Your task to perform on an android device: delete browsing data in the chrome app Image 0: 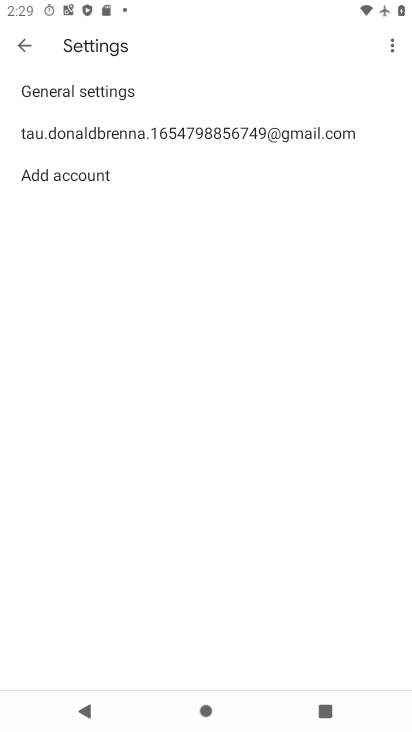
Step 0: press home button
Your task to perform on an android device: delete browsing data in the chrome app Image 1: 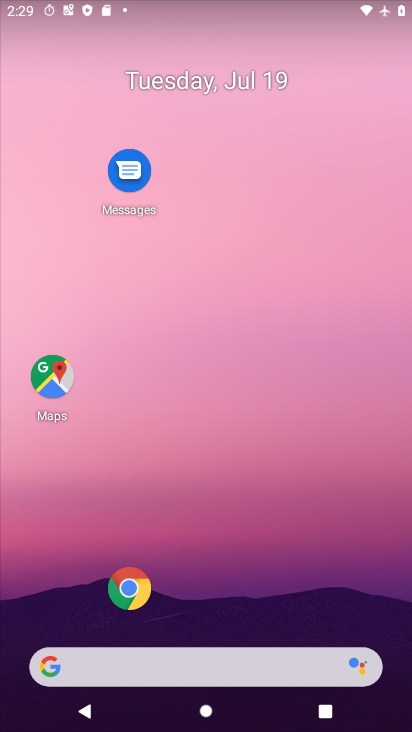
Step 1: click (120, 579)
Your task to perform on an android device: delete browsing data in the chrome app Image 2: 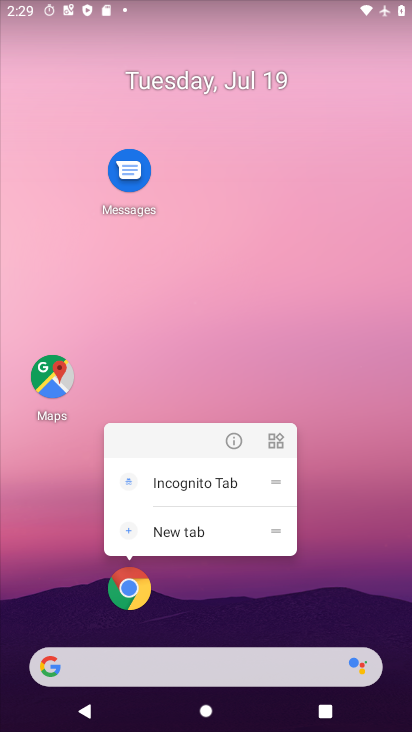
Step 2: click (139, 585)
Your task to perform on an android device: delete browsing data in the chrome app Image 3: 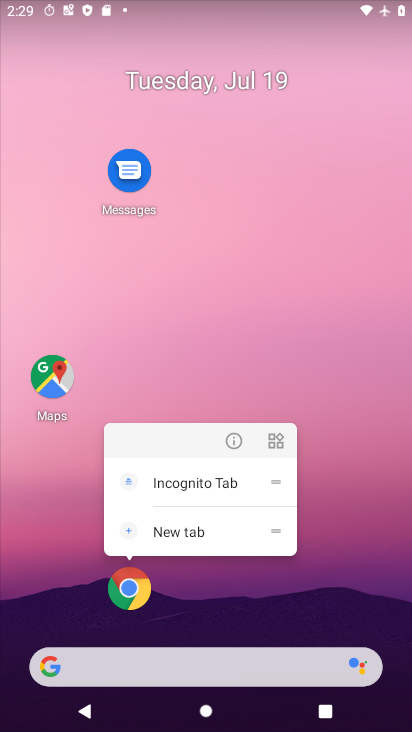
Step 3: click (140, 585)
Your task to perform on an android device: delete browsing data in the chrome app Image 4: 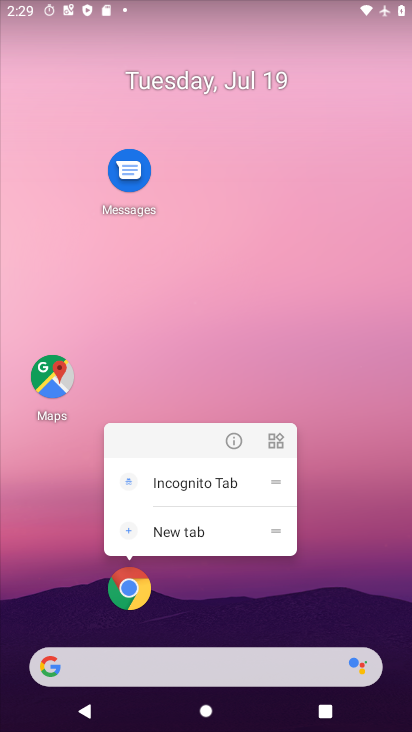
Step 4: click (61, 601)
Your task to perform on an android device: delete browsing data in the chrome app Image 5: 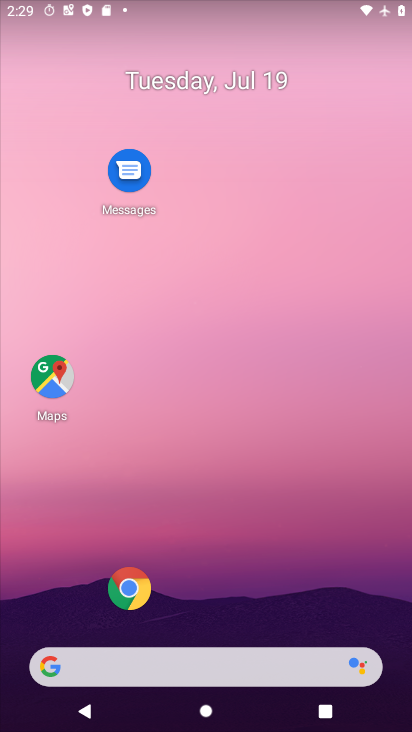
Step 5: click (112, 589)
Your task to perform on an android device: delete browsing data in the chrome app Image 6: 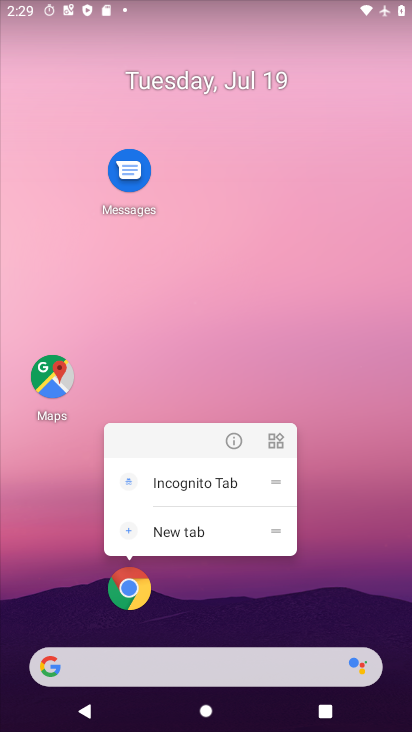
Step 6: task complete